Your task to perform on an android device: What's the weather today? Image 0: 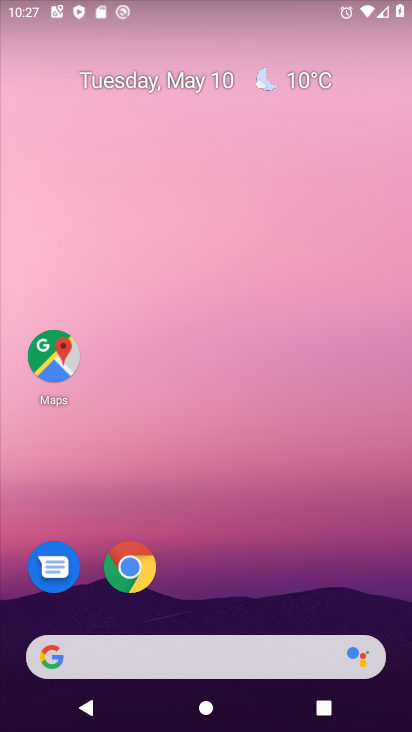
Step 0: click (296, 86)
Your task to perform on an android device: What's the weather today? Image 1: 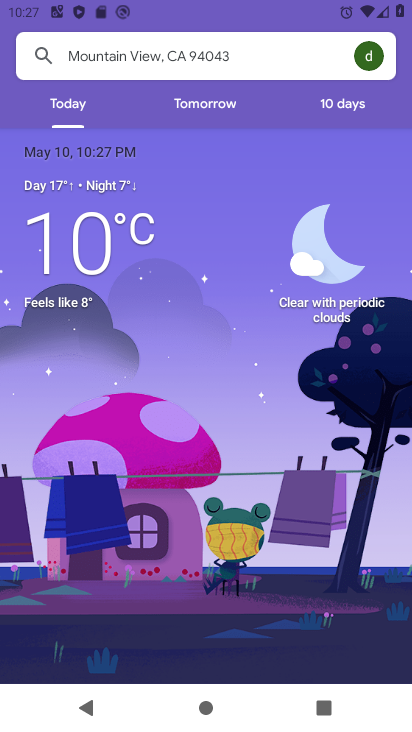
Step 1: task complete